Your task to perform on an android device: turn pop-ups on in chrome Image 0: 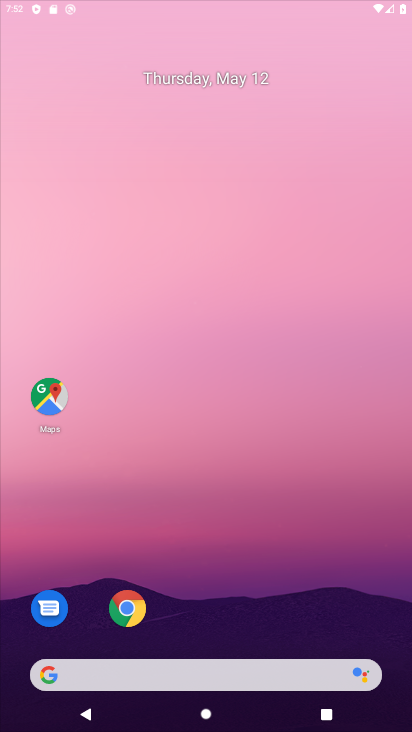
Step 0: drag from (307, 490) to (360, 134)
Your task to perform on an android device: turn pop-ups on in chrome Image 1: 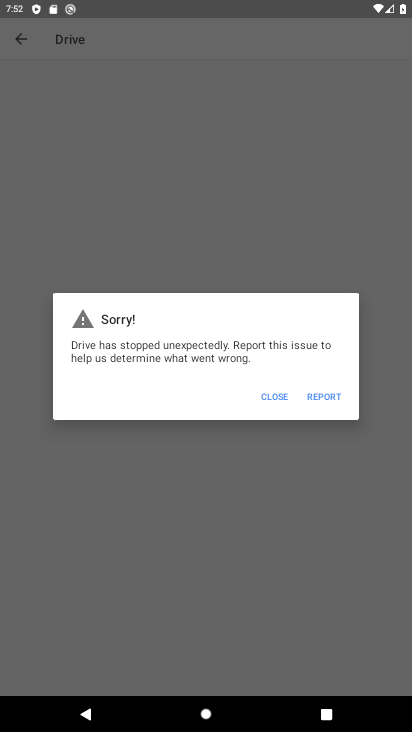
Step 1: press home button
Your task to perform on an android device: turn pop-ups on in chrome Image 2: 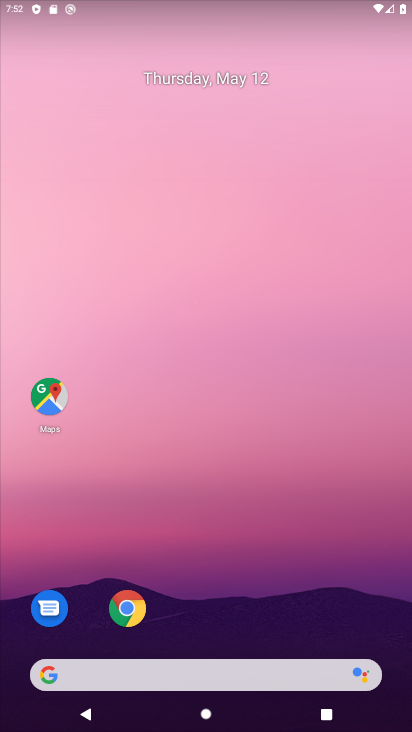
Step 2: click (124, 617)
Your task to perform on an android device: turn pop-ups on in chrome Image 3: 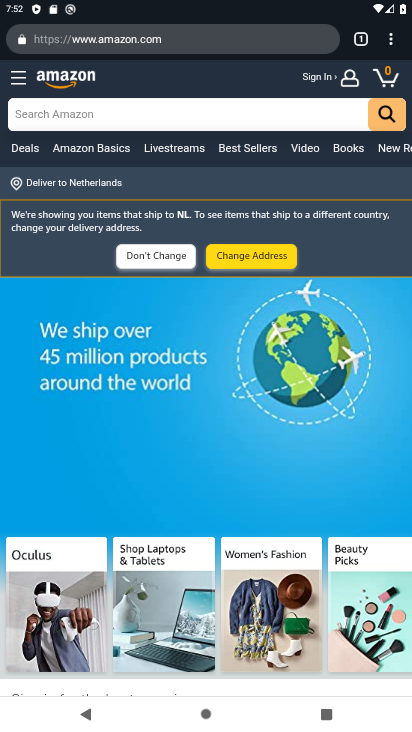
Step 3: click (394, 43)
Your task to perform on an android device: turn pop-ups on in chrome Image 4: 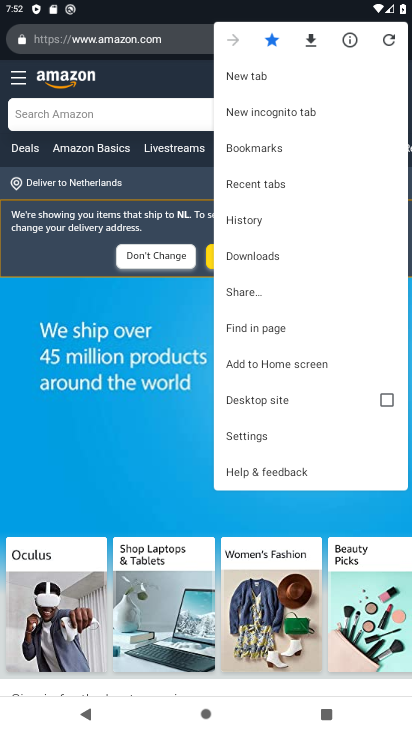
Step 4: click (276, 434)
Your task to perform on an android device: turn pop-ups on in chrome Image 5: 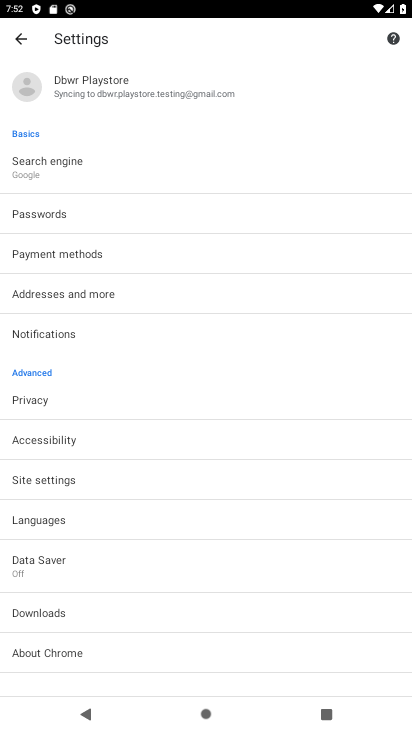
Step 5: click (115, 478)
Your task to perform on an android device: turn pop-ups on in chrome Image 6: 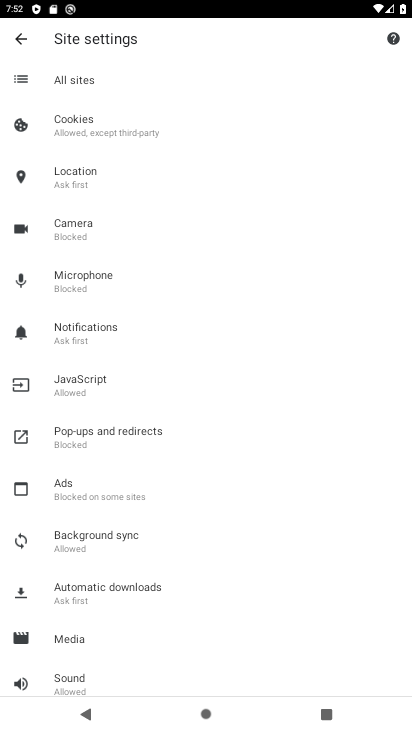
Step 6: click (152, 441)
Your task to perform on an android device: turn pop-ups on in chrome Image 7: 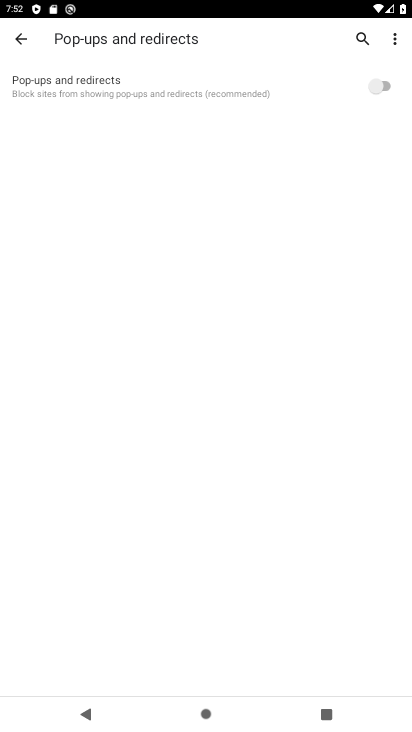
Step 7: click (392, 86)
Your task to perform on an android device: turn pop-ups on in chrome Image 8: 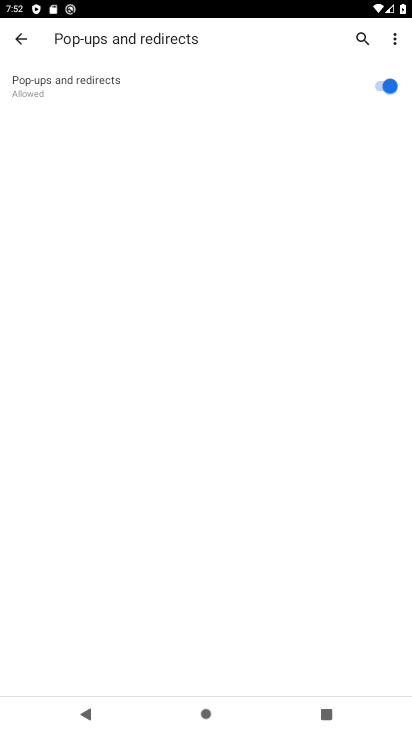
Step 8: task complete